Your task to perform on an android device: remove spam from my inbox in the gmail app Image 0: 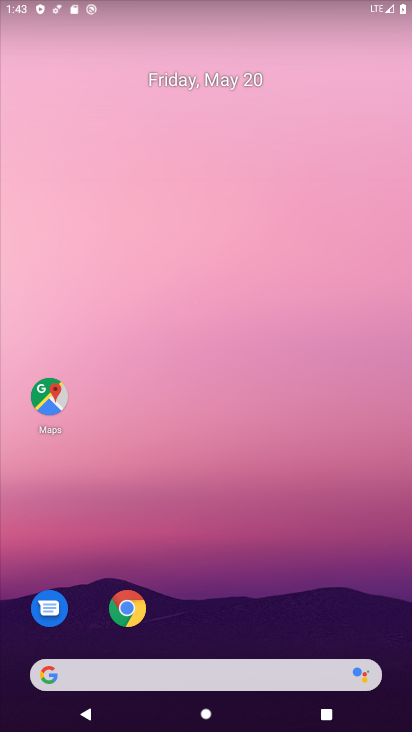
Step 0: drag from (260, 623) to (191, 149)
Your task to perform on an android device: remove spam from my inbox in the gmail app Image 1: 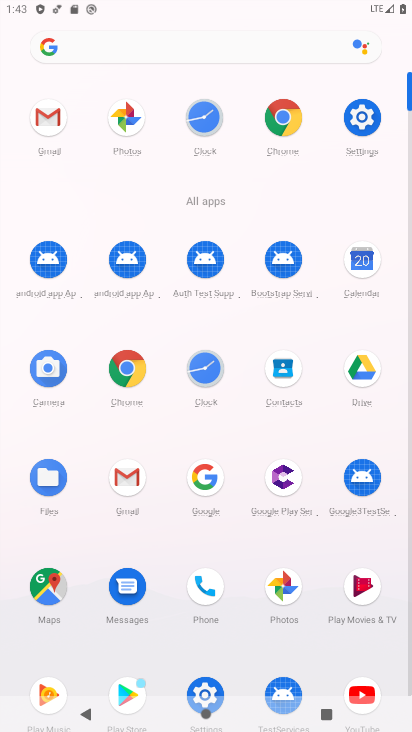
Step 1: click (46, 120)
Your task to perform on an android device: remove spam from my inbox in the gmail app Image 2: 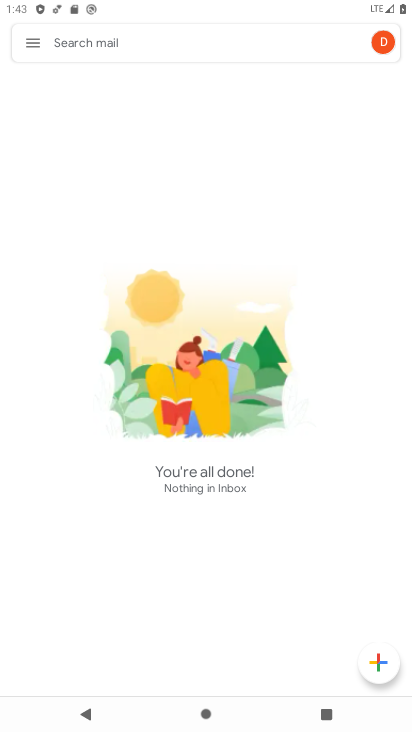
Step 2: click (39, 48)
Your task to perform on an android device: remove spam from my inbox in the gmail app Image 3: 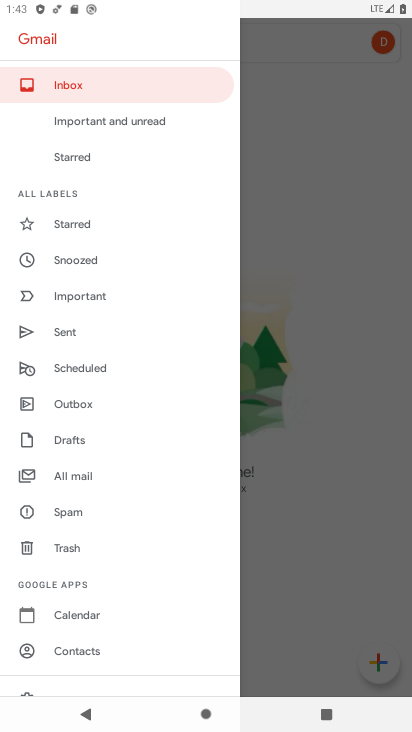
Step 3: click (65, 515)
Your task to perform on an android device: remove spam from my inbox in the gmail app Image 4: 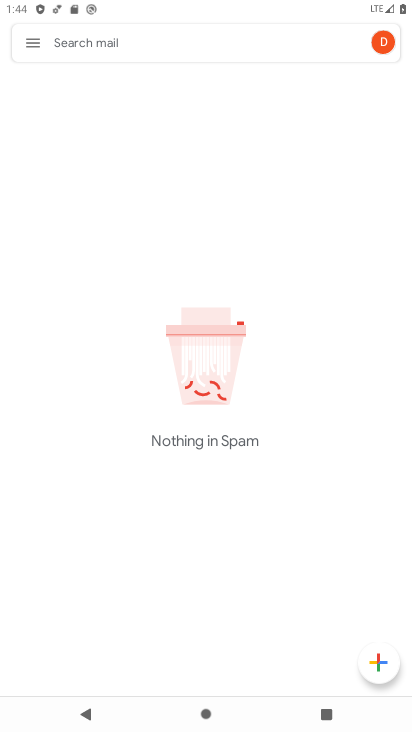
Step 4: task complete